Your task to perform on an android device: Open display settings Image 0: 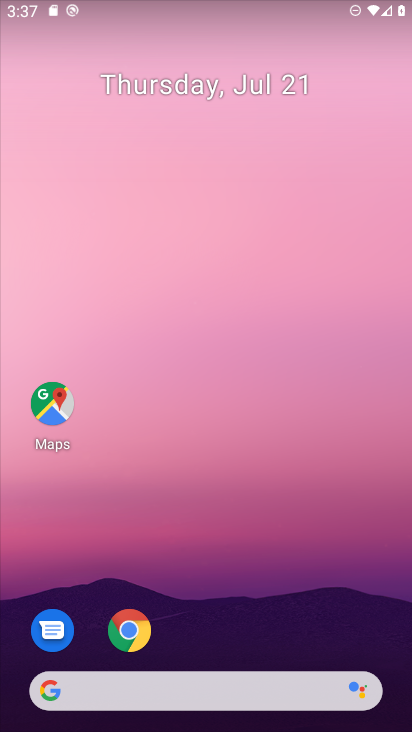
Step 0: drag from (207, 656) to (249, 81)
Your task to perform on an android device: Open display settings Image 1: 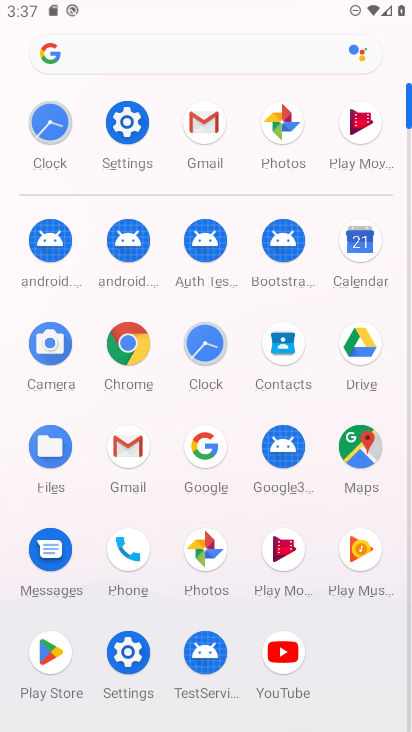
Step 1: click (128, 122)
Your task to perform on an android device: Open display settings Image 2: 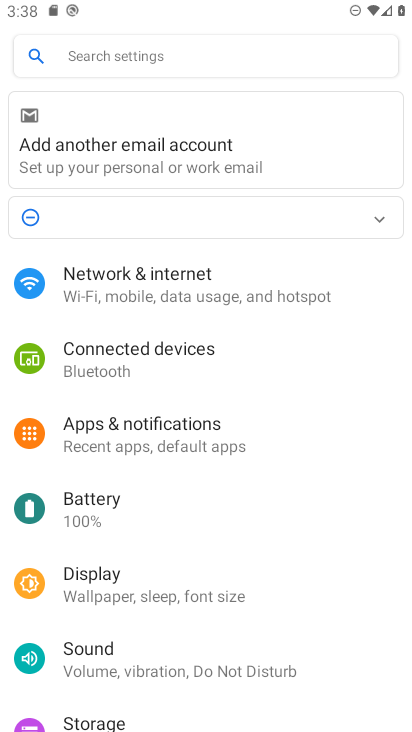
Step 2: click (104, 587)
Your task to perform on an android device: Open display settings Image 3: 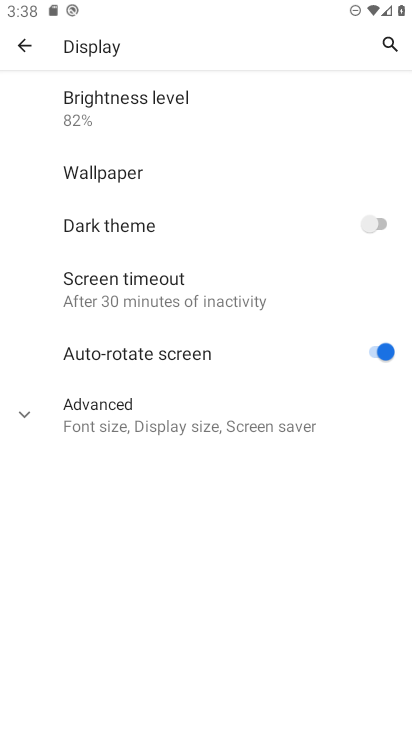
Step 3: task complete